Your task to perform on an android device: See recent photos Image 0: 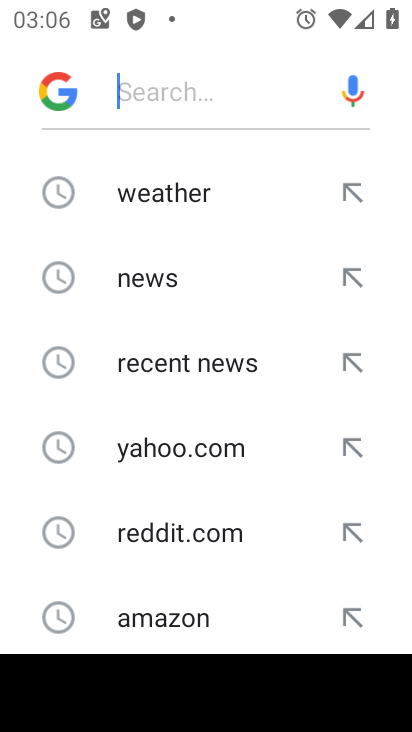
Step 0: press home button
Your task to perform on an android device: See recent photos Image 1: 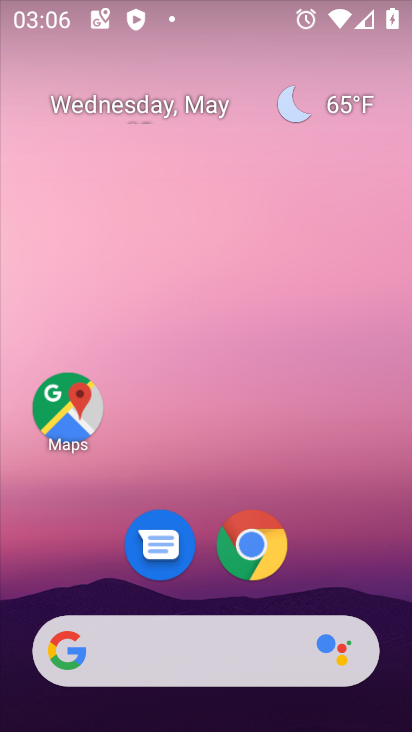
Step 1: drag from (344, 581) to (208, 75)
Your task to perform on an android device: See recent photos Image 2: 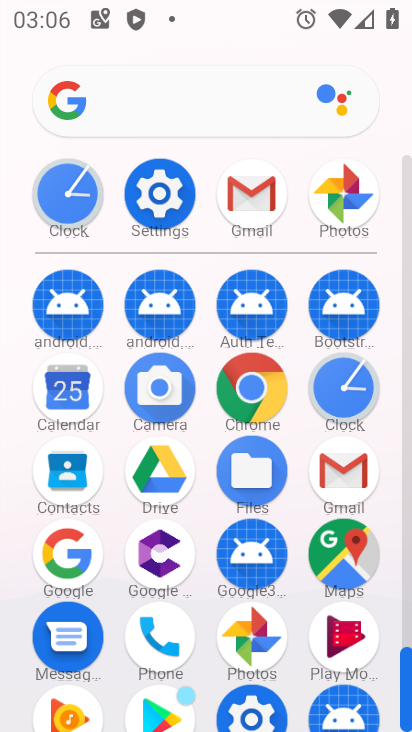
Step 2: click (258, 626)
Your task to perform on an android device: See recent photos Image 3: 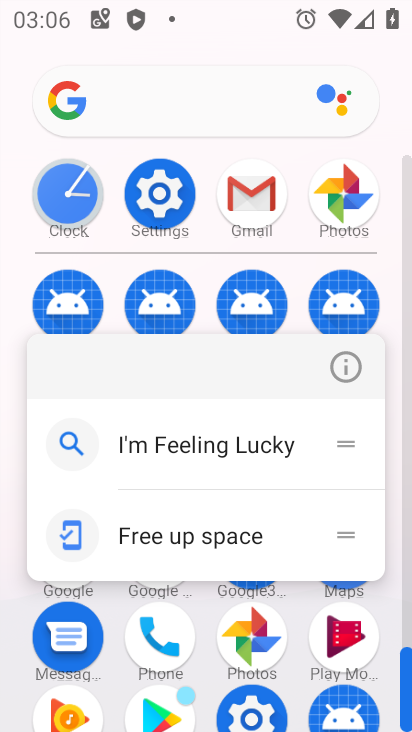
Step 3: click (257, 651)
Your task to perform on an android device: See recent photos Image 4: 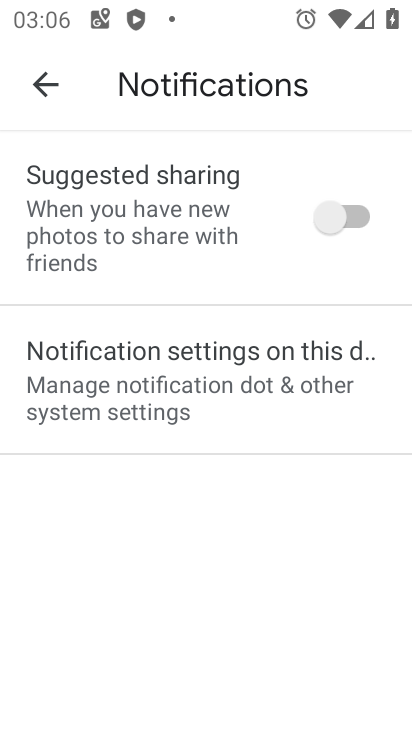
Step 4: click (40, 86)
Your task to perform on an android device: See recent photos Image 5: 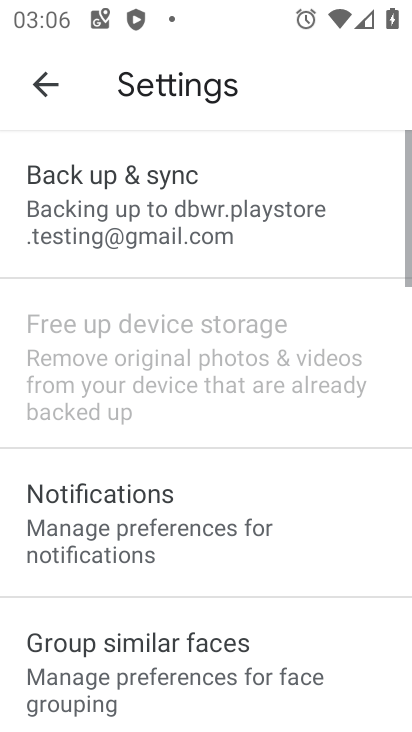
Step 5: click (47, 93)
Your task to perform on an android device: See recent photos Image 6: 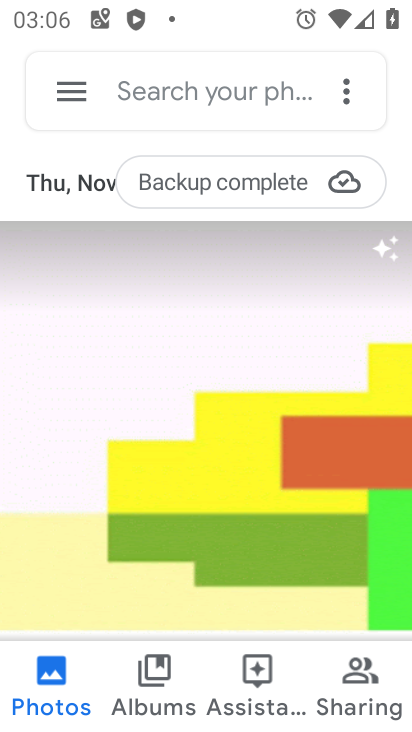
Step 6: task complete